Your task to perform on an android device: turn on improve location accuracy Image 0: 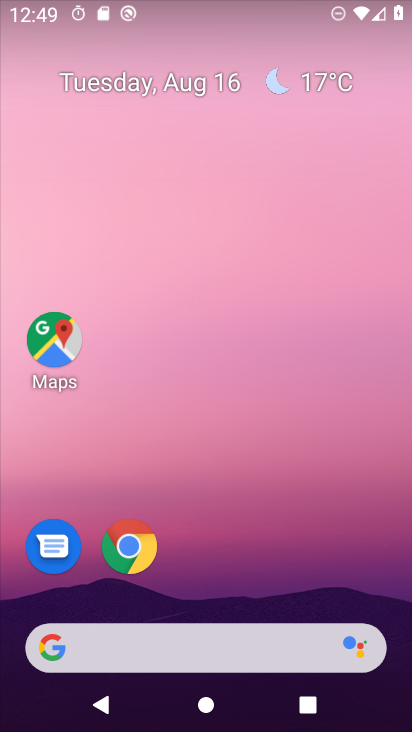
Step 0: drag from (209, 573) to (166, 118)
Your task to perform on an android device: turn on improve location accuracy Image 1: 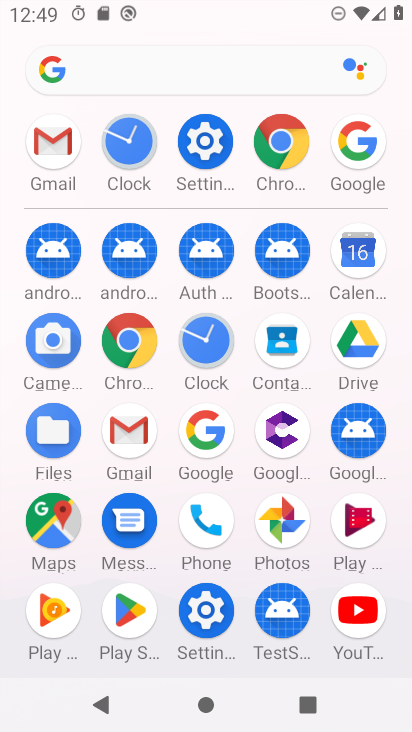
Step 1: click (200, 140)
Your task to perform on an android device: turn on improve location accuracy Image 2: 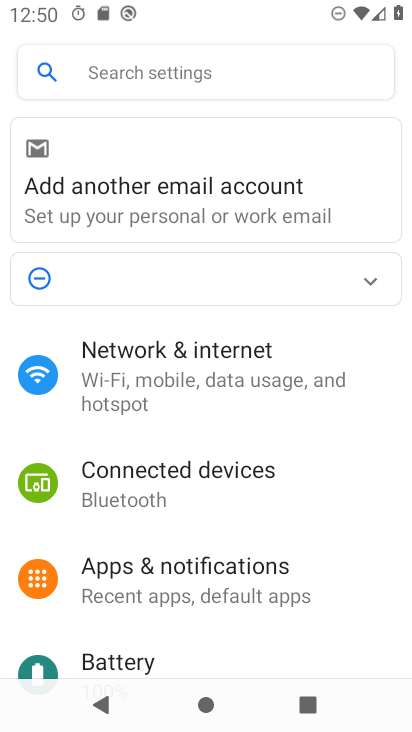
Step 2: drag from (165, 598) to (160, 285)
Your task to perform on an android device: turn on improve location accuracy Image 3: 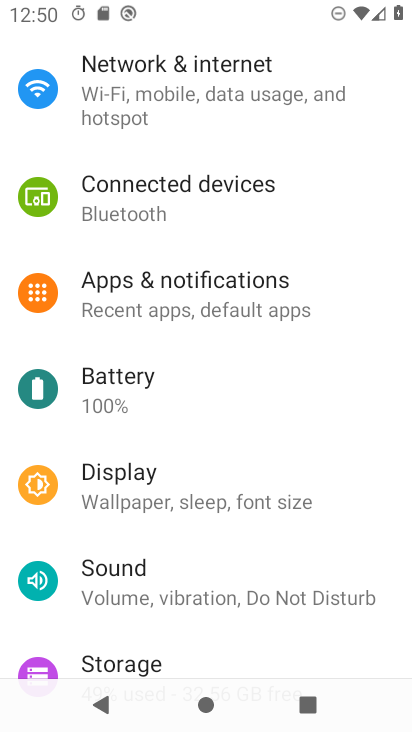
Step 3: drag from (153, 606) to (156, 393)
Your task to perform on an android device: turn on improve location accuracy Image 4: 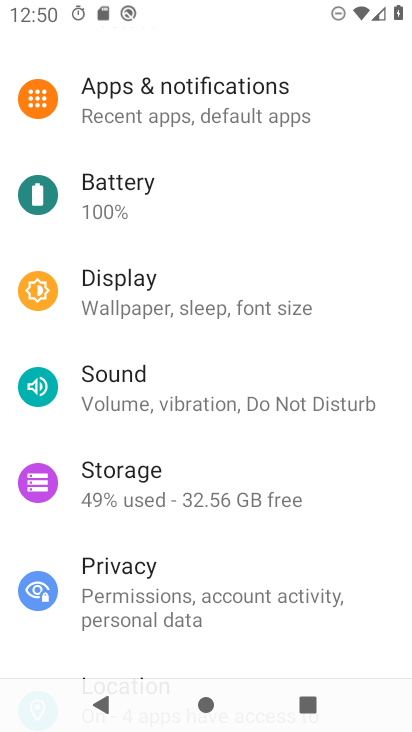
Step 4: drag from (160, 556) to (147, 263)
Your task to perform on an android device: turn on improve location accuracy Image 5: 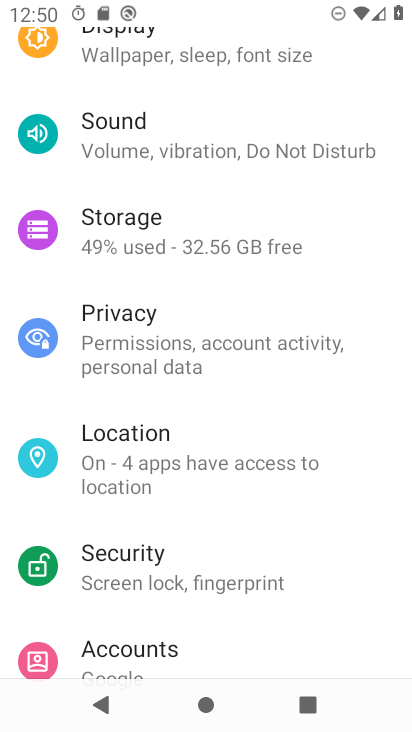
Step 5: click (117, 453)
Your task to perform on an android device: turn on improve location accuracy Image 6: 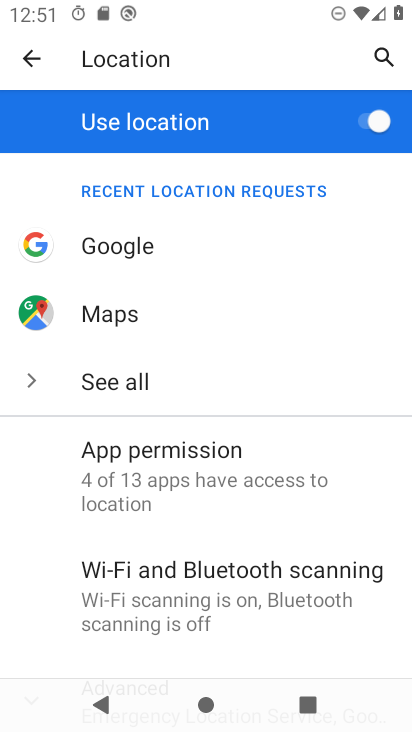
Step 6: drag from (182, 610) to (176, 351)
Your task to perform on an android device: turn on improve location accuracy Image 7: 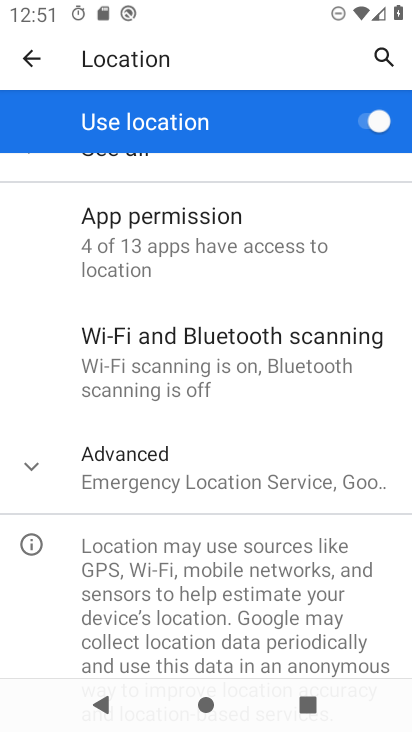
Step 7: click (179, 484)
Your task to perform on an android device: turn on improve location accuracy Image 8: 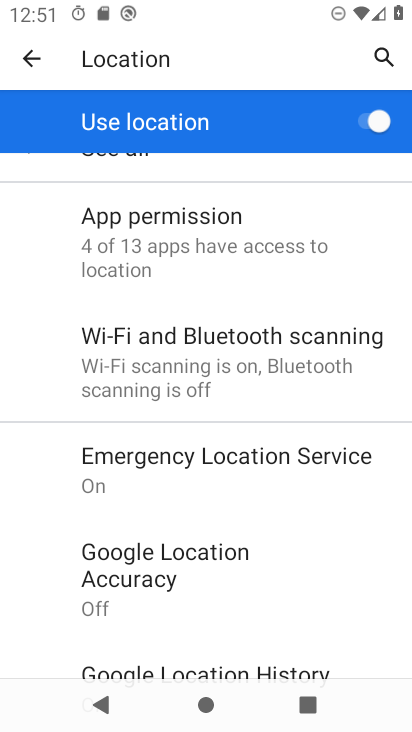
Step 8: click (146, 560)
Your task to perform on an android device: turn on improve location accuracy Image 9: 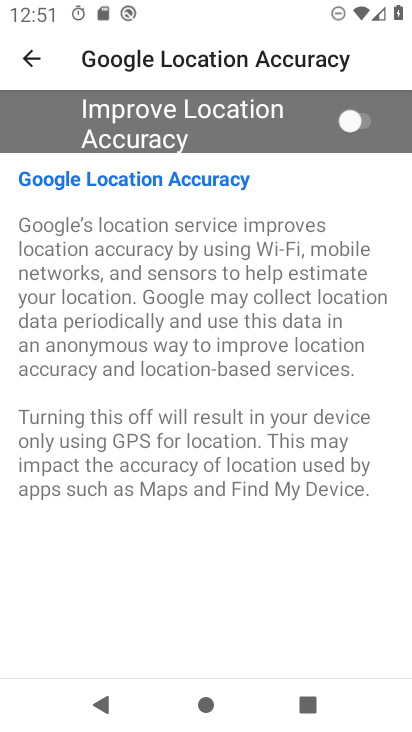
Step 9: click (362, 124)
Your task to perform on an android device: turn on improve location accuracy Image 10: 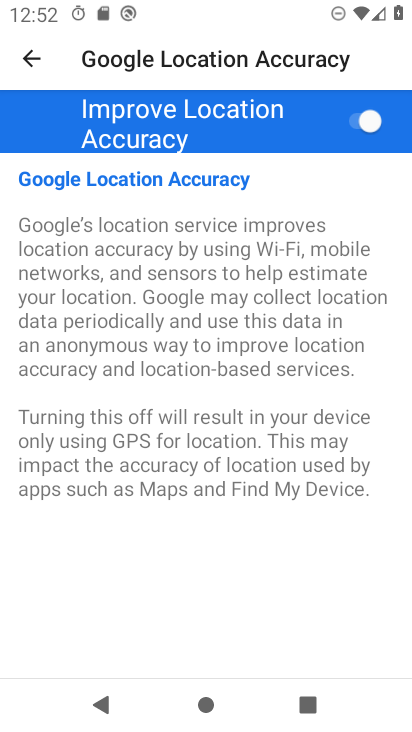
Step 10: task complete